Your task to perform on an android device: set the timer Image 0: 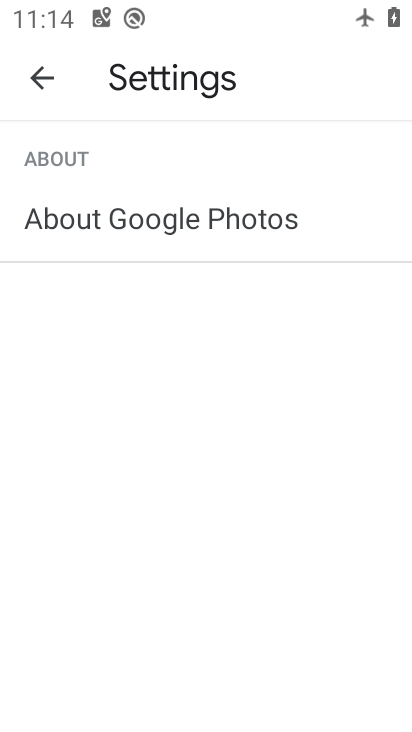
Step 0: click (40, 80)
Your task to perform on an android device: set the timer Image 1: 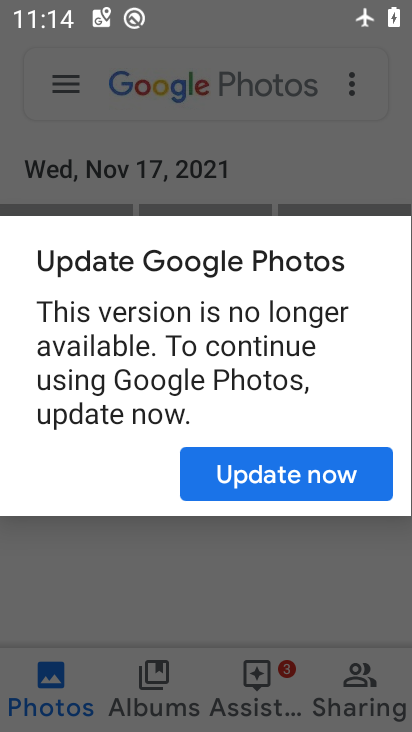
Step 1: press home button
Your task to perform on an android device: set the timer Image 2: 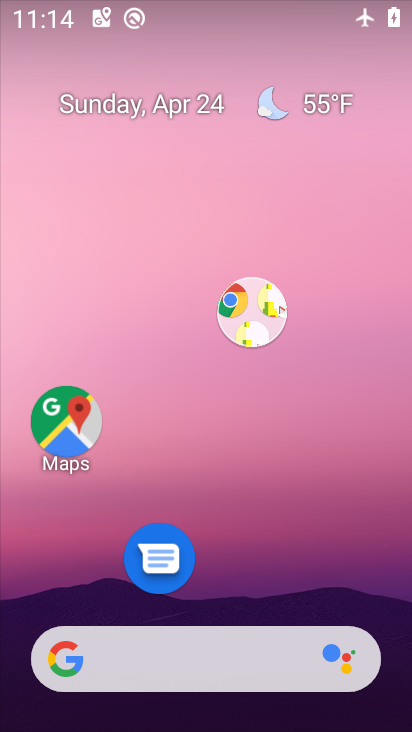
Step 2: drag from (291, 511) to (205, 12)
Your task to perform on an android device: set the timer Image 3: 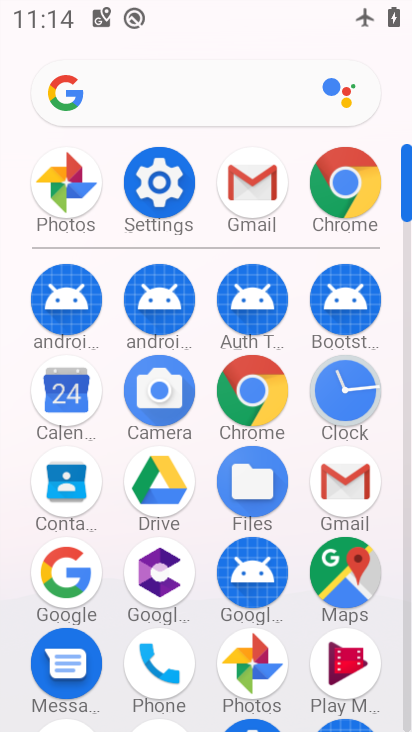
Step 3: click (358, 393)
Your task to perform on an android device: set the timer Image 4: 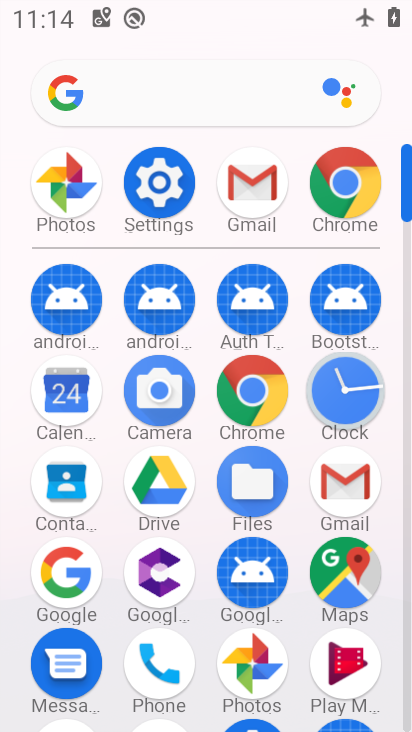
Step 4: click (353, 390)
Your task to perform on an android device: set the timer Image 5: 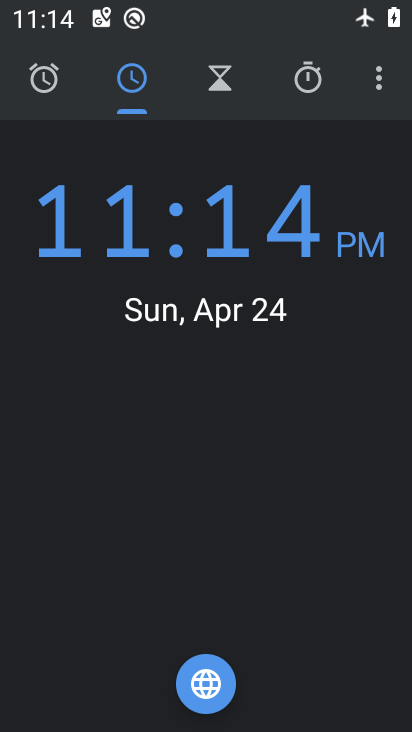
Step 5: click (305, 86)
Your task to perform on an android device: set the timer Image 6: 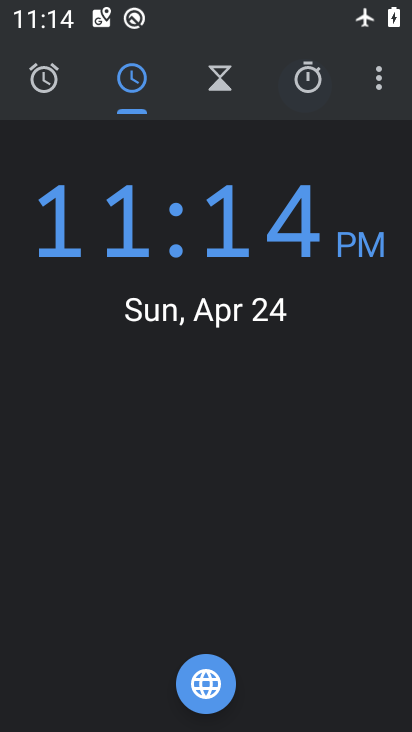
Step 6: click (305, 86)
Your task to perform on an android device: set the timer Image 7: 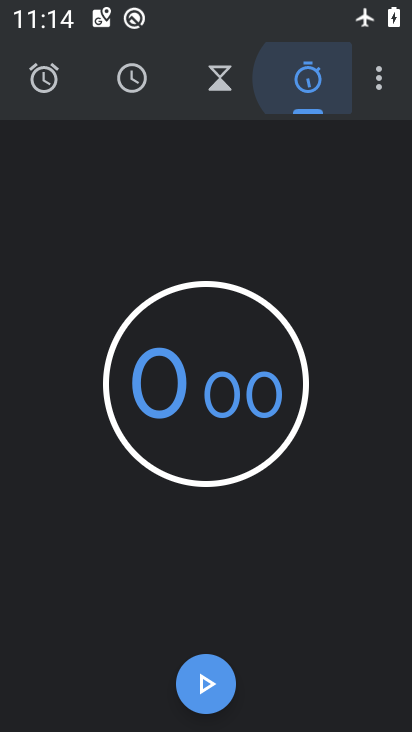
Step 7: click (305, 86)
Your task to perform on an android device: set the timer Image 8: 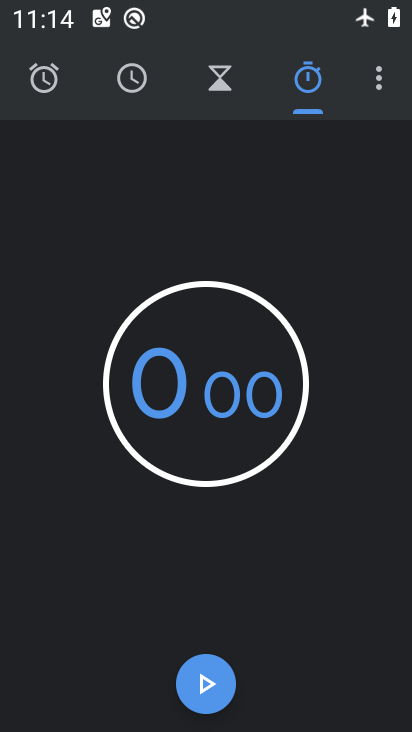
Step 8: click (200, 681)
Your task to perform on an android device: set the timer Image 9: 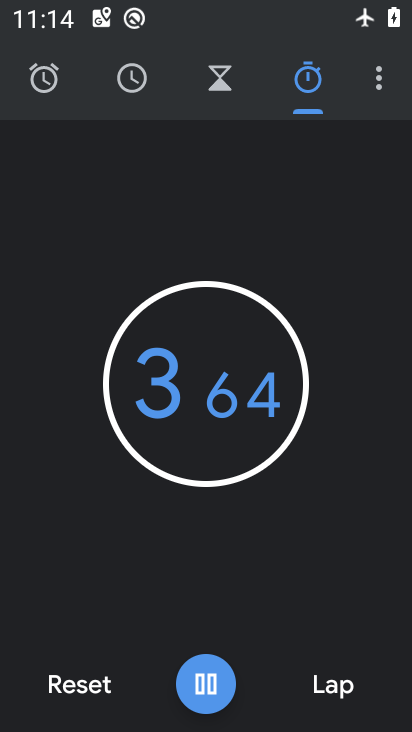
Step 9: click (202, 679)
Your task to perform on an android device: set the timer Image 10: 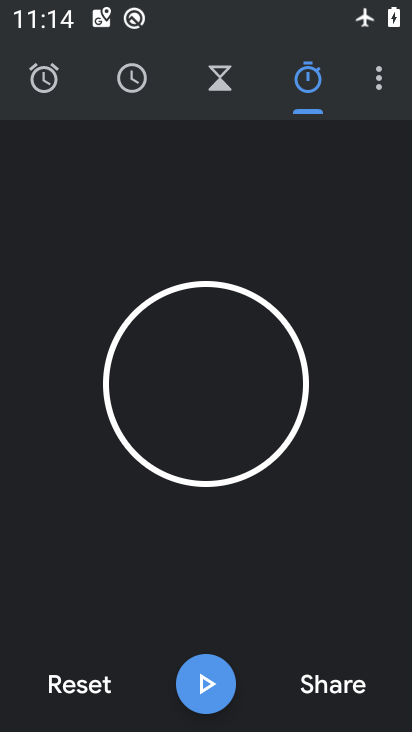
Step 10: task complete